Your task to perform on an android device: Go to calendar. Show me events next week Image 0: 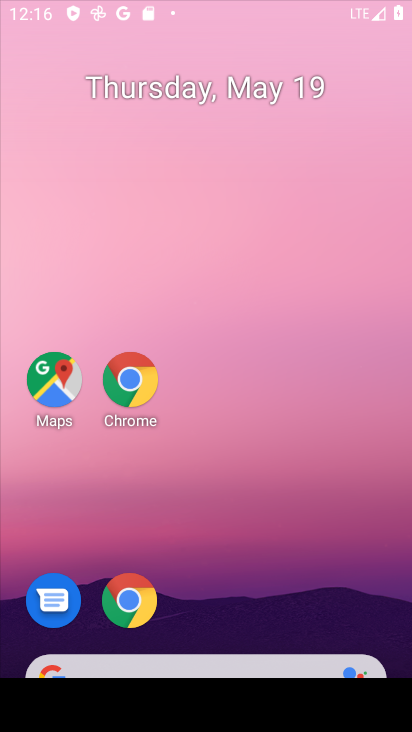
Step 0: drag from (196, 384) to (118, 185)
Your task to perform on an android device: Go to calendar. Show me events next week Image 1: 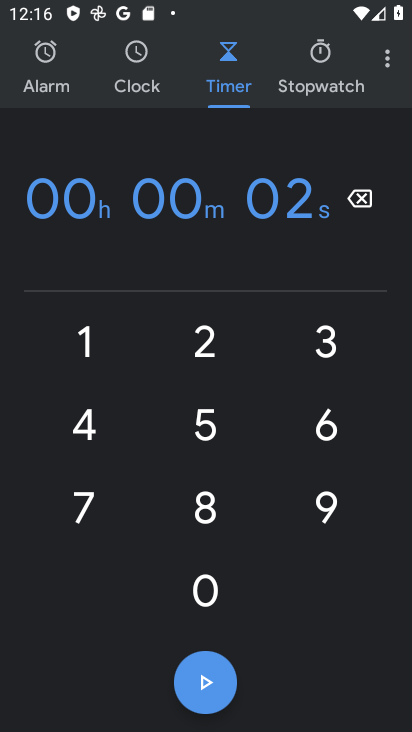
Step 1: click (384, 66)
Your task to perform on an android device: Go to calendar. Show me events next week Image 2: 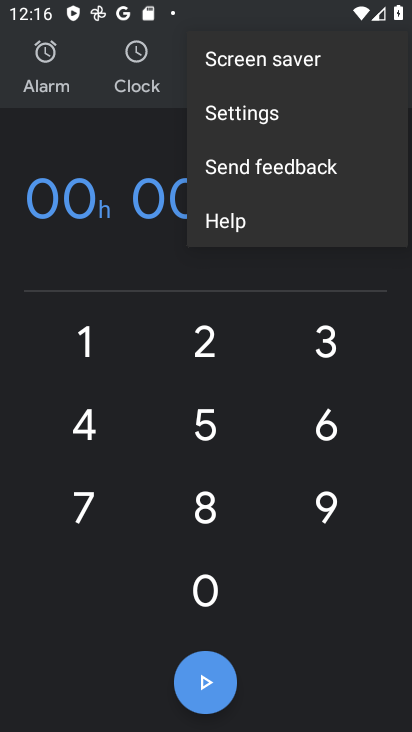
Step 2: click (241, 114)
Your task to perform on an android device: Go to calendar. Show me events next week Image 3: 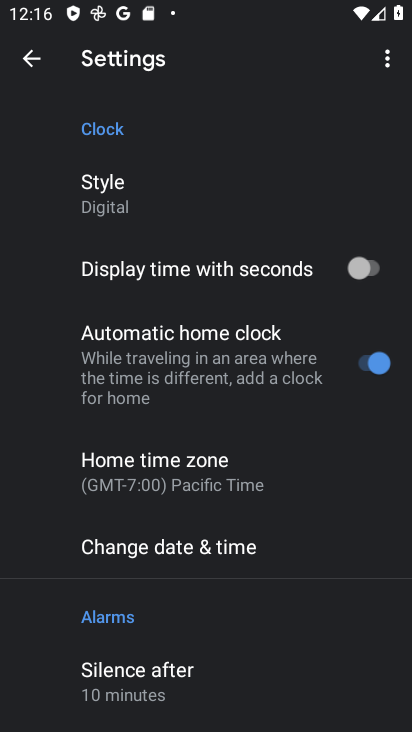
Step 3: drag from (195, 478) to (174, 130)
Your task to perform on an android device: Go to calendar. Show me events next week Image 4: 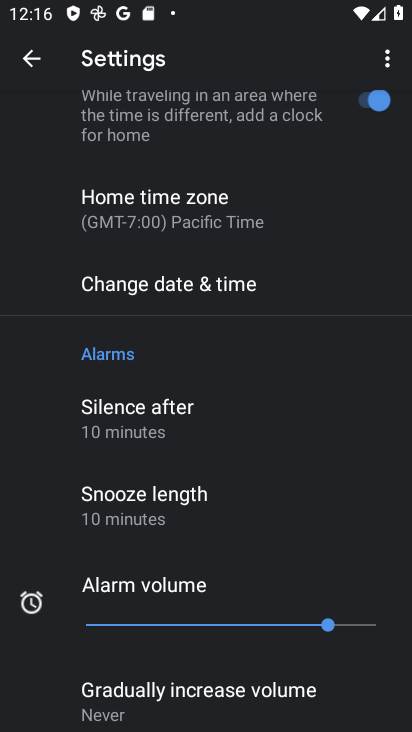
Step 4: click (25, 65)
Your task to perform on an android device: Go to calendar. Show me events next week Image 5: 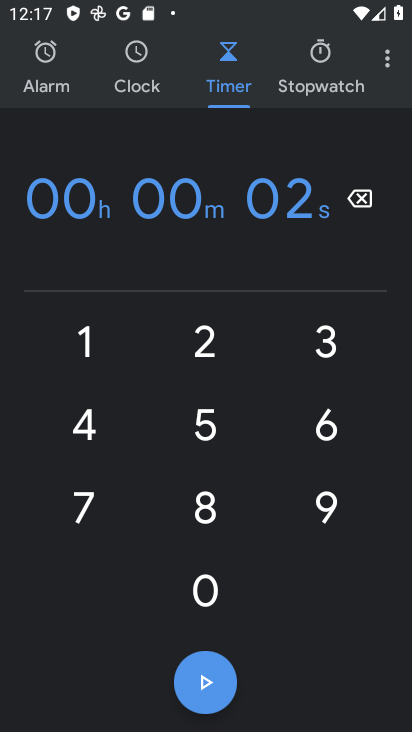
Step 5: press back button
Your task to perform on an android device: Go to calendar. Show me events next week Image 6: 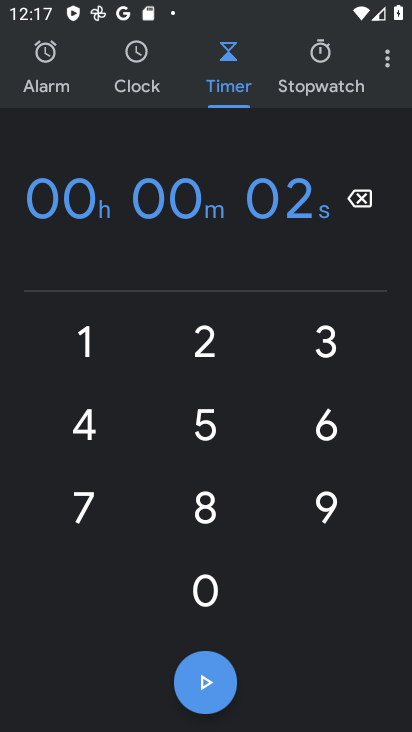
Step 6: press back button
Your task to perform on an android device: Go to calendar. Show me events next week Image 7: 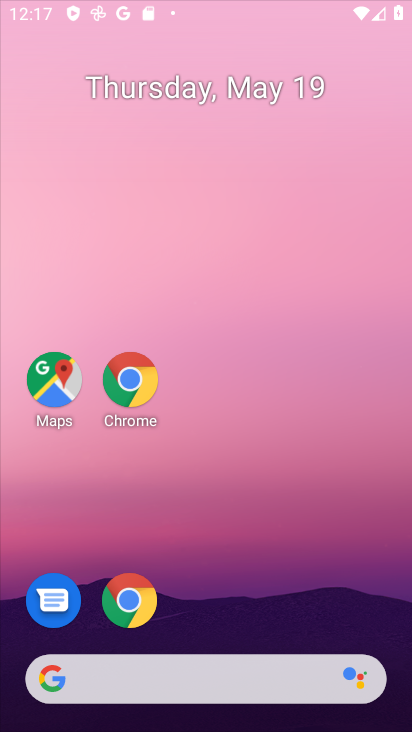
Step 7: press back button
Your task to perform on an android device: Go to calendar. Show me events next week Image 8: 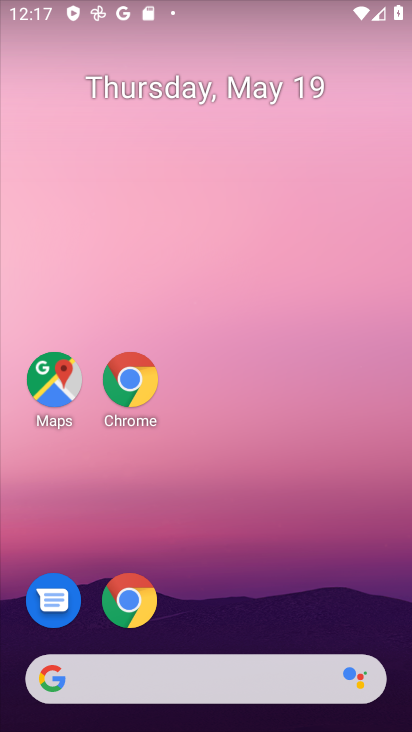
Step 8: press home button
Your task to perform on an android device: Go to calendar. Show me events next week Image 9: 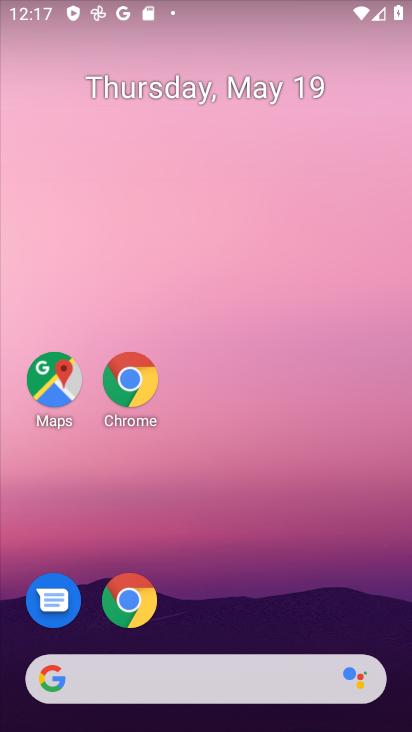
Step 9: drag from (295, 644) to (122, 66)
Your task to perform on an android device: Go to calendar. Show me events next week Image 10: 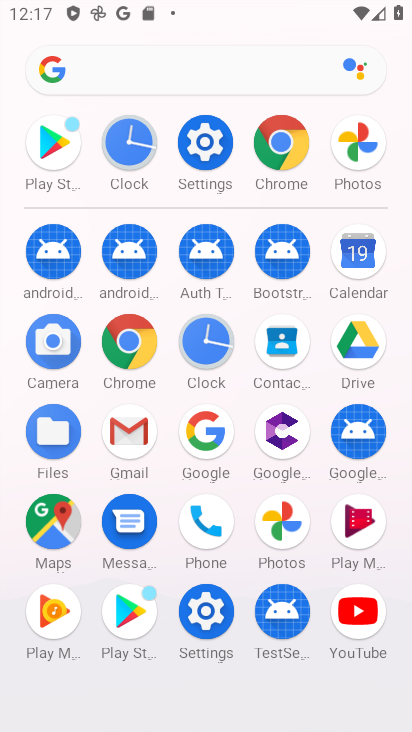
Step 10: click (349, 247)
Your task to perform on an android device: Go to calendar. Show me events next week Image 11: 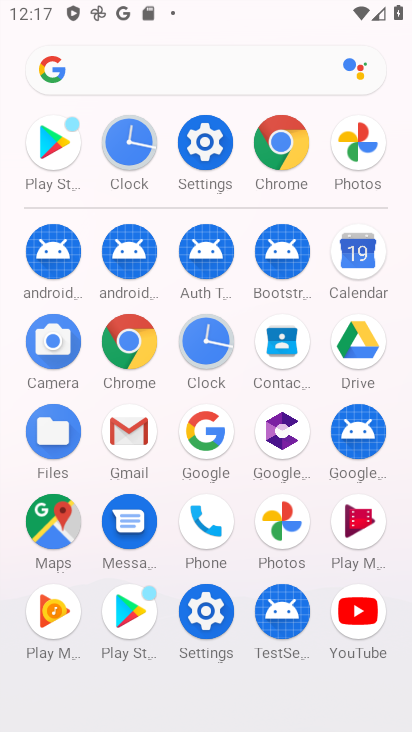
Step 11: click (350, 246)
Your task to perform on an android device: Go to calendar. Show me events next week Image 12: 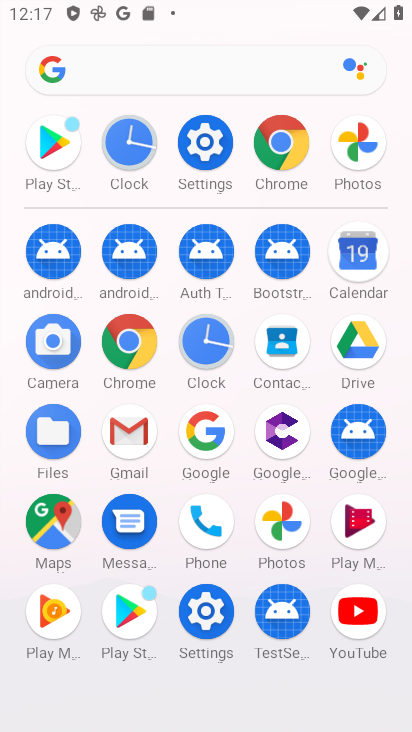
Step 12: click (350, 246)
Your task to perform on an android device: Go to calendar. Show me events next week Image 13: 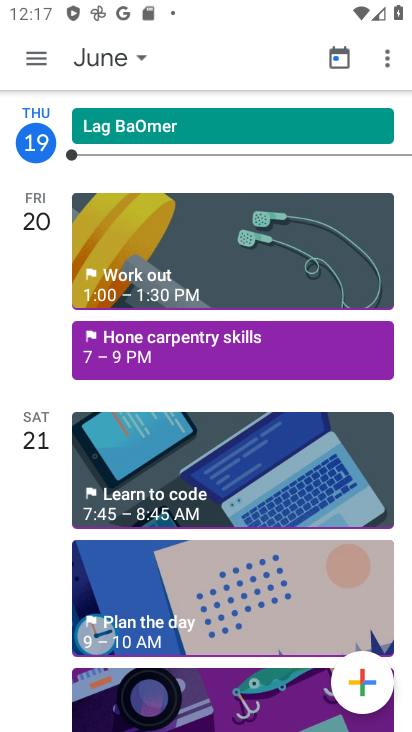
Step 13: click (121, 229)
Your task to perform on an android device: Go to calendar. Show me events next week Image 14: 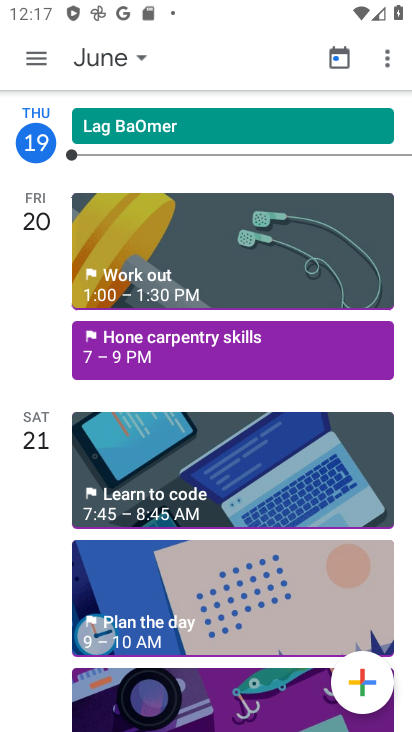
Step 14: task complete